Your task to perform on an android device: snooze an email in the gmail app Image 0: 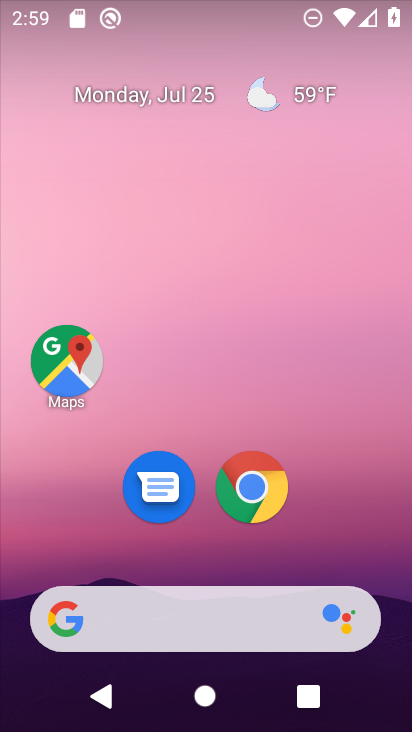
Step 0: drag from (94, 591) to (245, 7)
Your task to perform on an android device: snooze an email in the gmail app Image 1: 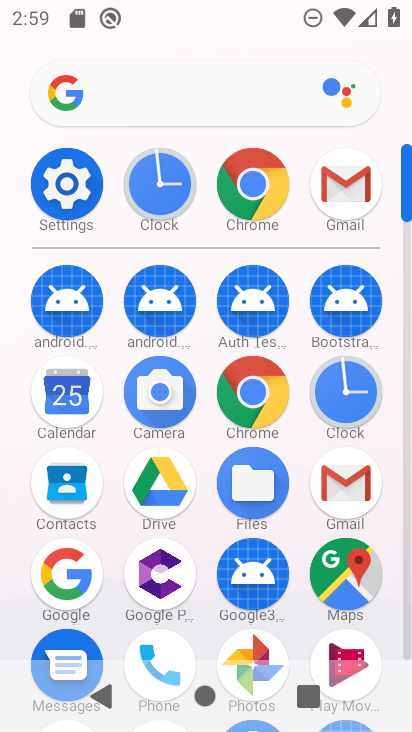
Step 1: click (358, 183)
Your task to perform on an android device: snooze an email in the gmail app Image 2: 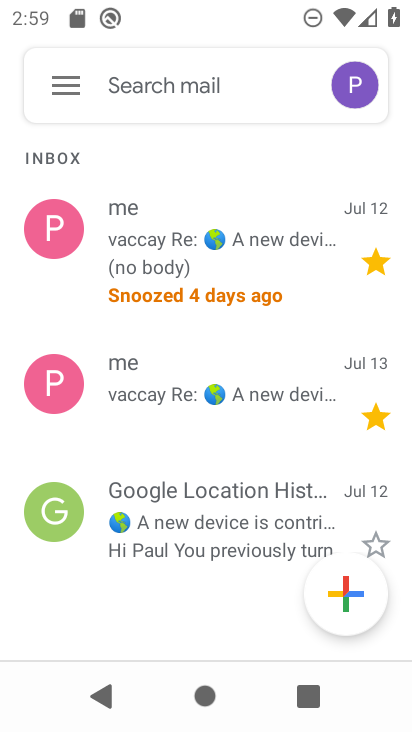
Step 2: click (190, 377)
Your task to perform on an android device: snooze an email in the gmail app Image 3: 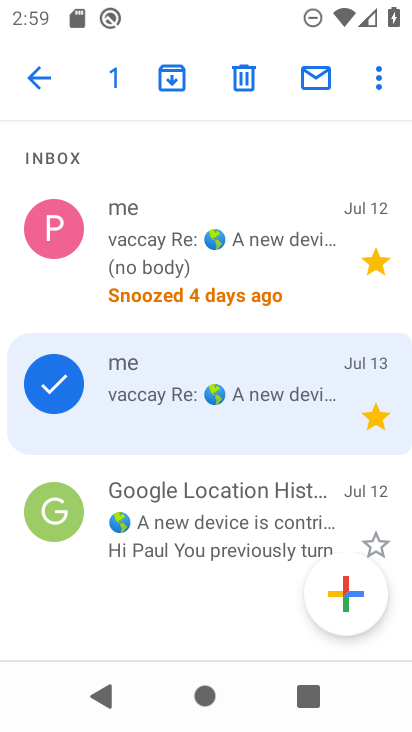
Step 3: click (375, 82)
Your task to perform on an android device: snooze an email in the gmail app Image 4: 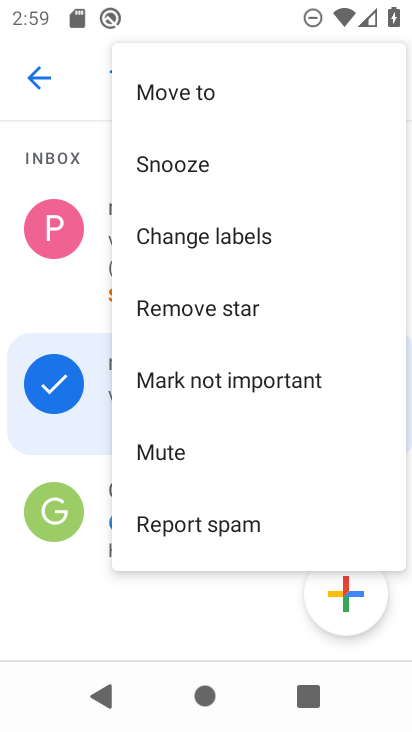
Step 4: click (160, 174)
Your task to perform on an android device: snooze an email in the gmail app Image 5: 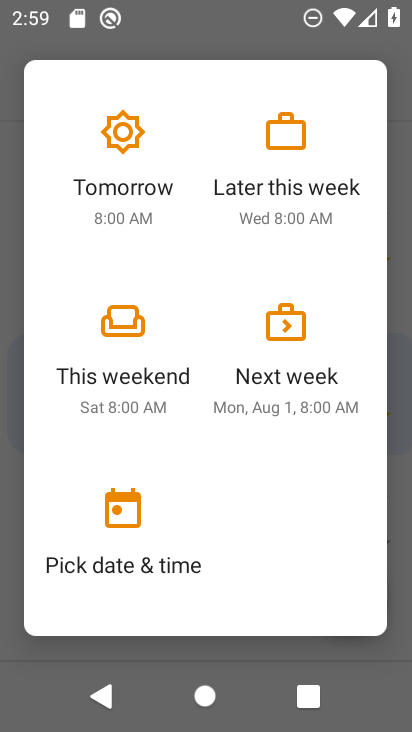
Step 5: click (127, 169)
Your task to perform on an android device: snooze an email in the gmail app Image 6: 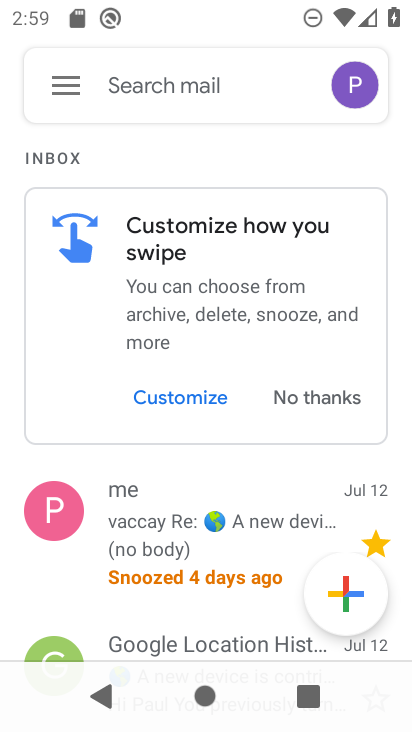
Step 6: task complete